Your task to perform on an android device: see tabs open on other devices in the chrome app Image 0: 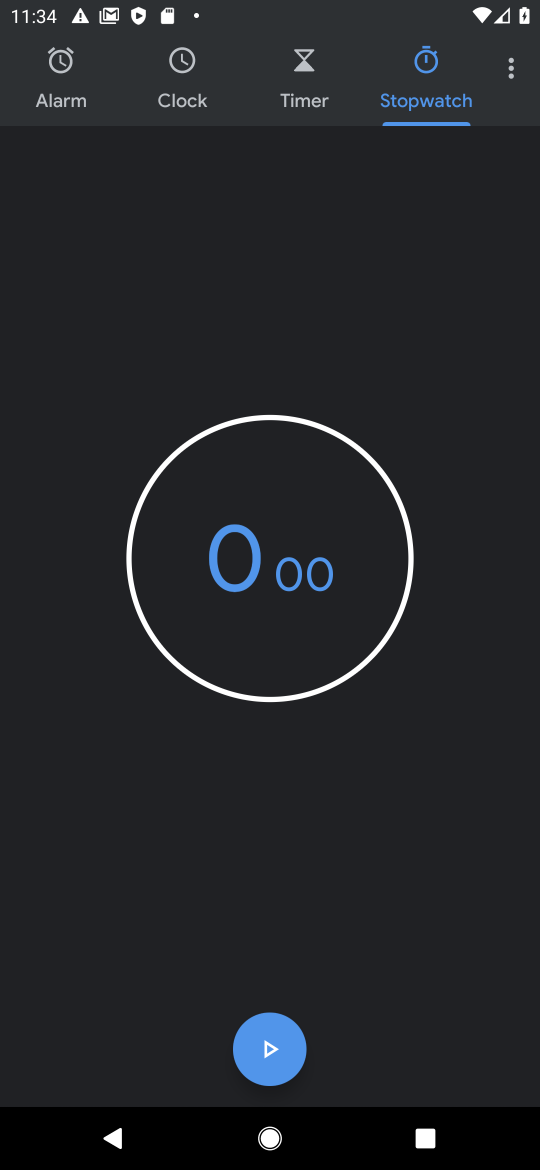
Step 0: press home button
Your task to perform on an android device: see tabs open on other devices in the chrome app Image 1: 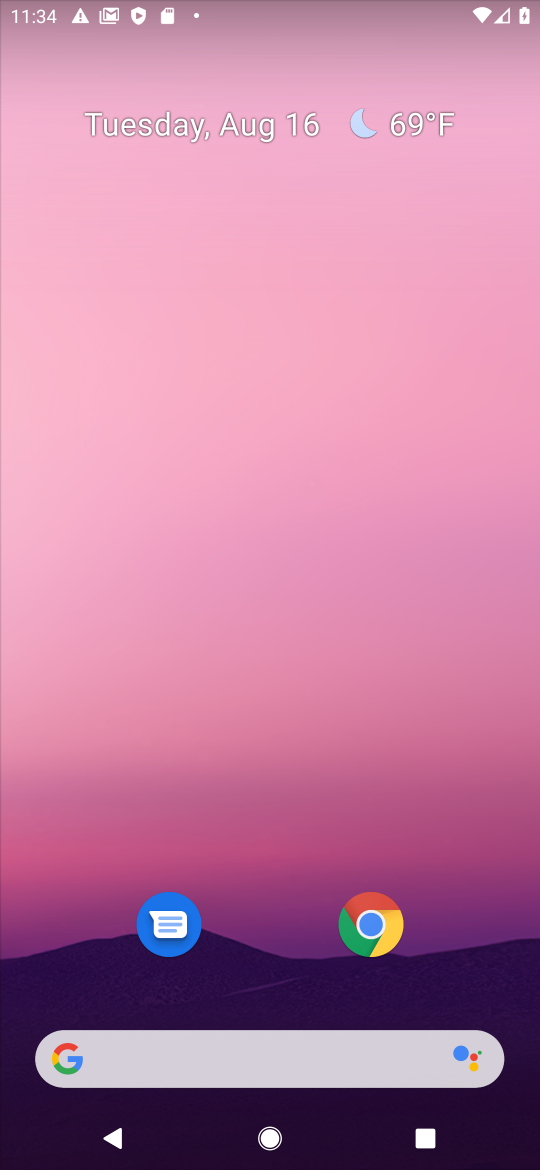
Step 1: click (384, 916)
Your task to perform on an android device: see tabs open on other devices in the chrome app Image 2: 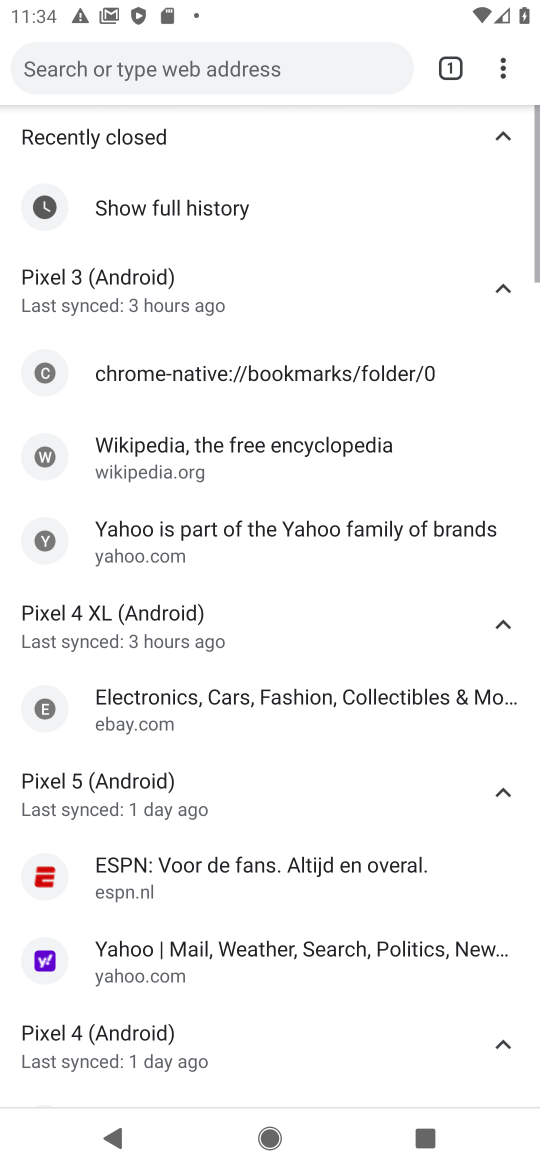
Step 2: task complete